Your task to perform on an android device: turn off improve location accuracy Image 0: 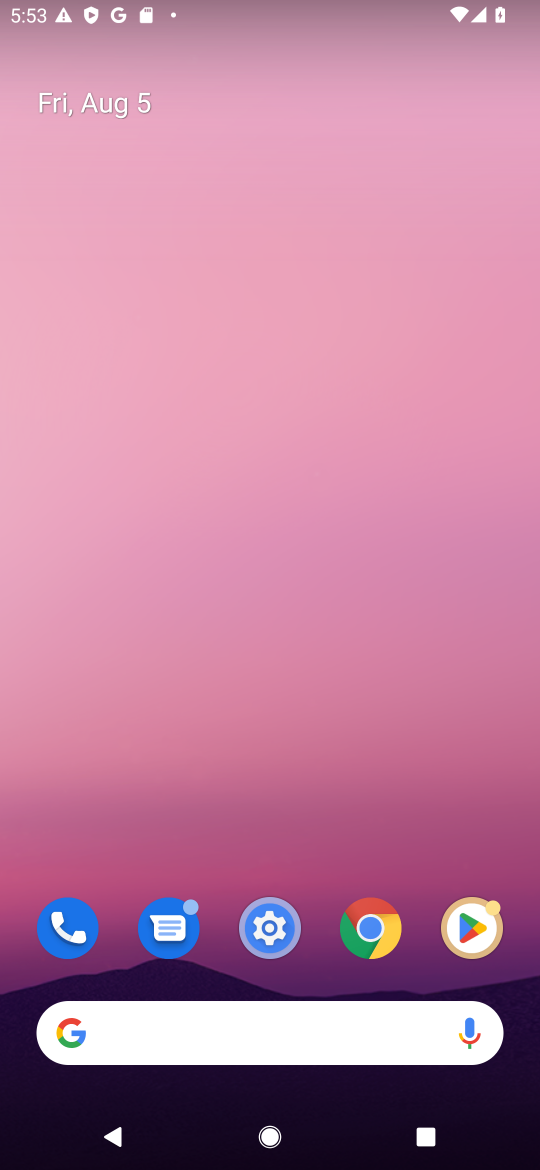
Step 0: drag from (278, 996) to (474, 615)
Your task to perform on an android device: turn off improve location accuracy Image 1: 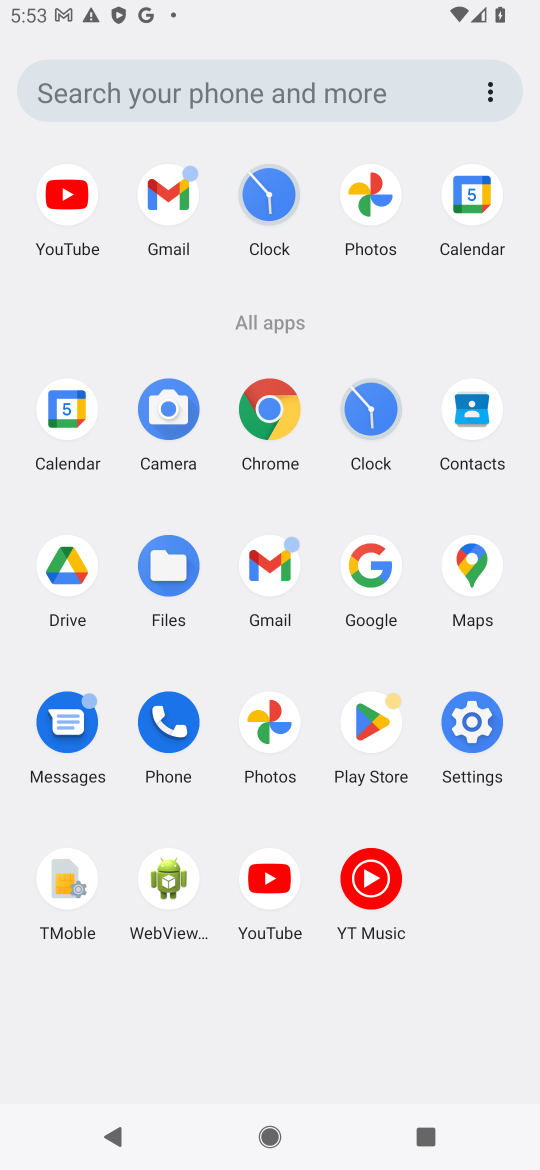
Step 1: click (460, 738)
Your task to perform on an android device: turn off improve location accuracy Image 2: 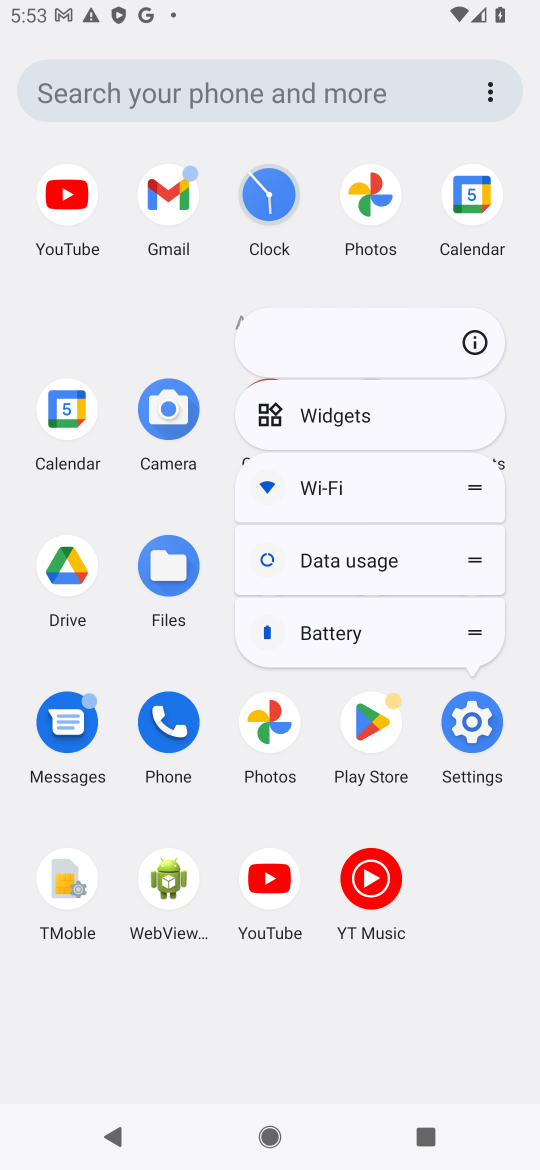
Step 2: click (465, 738)
Your task to perform on an android device: turn off improve location accuracy Image 3: 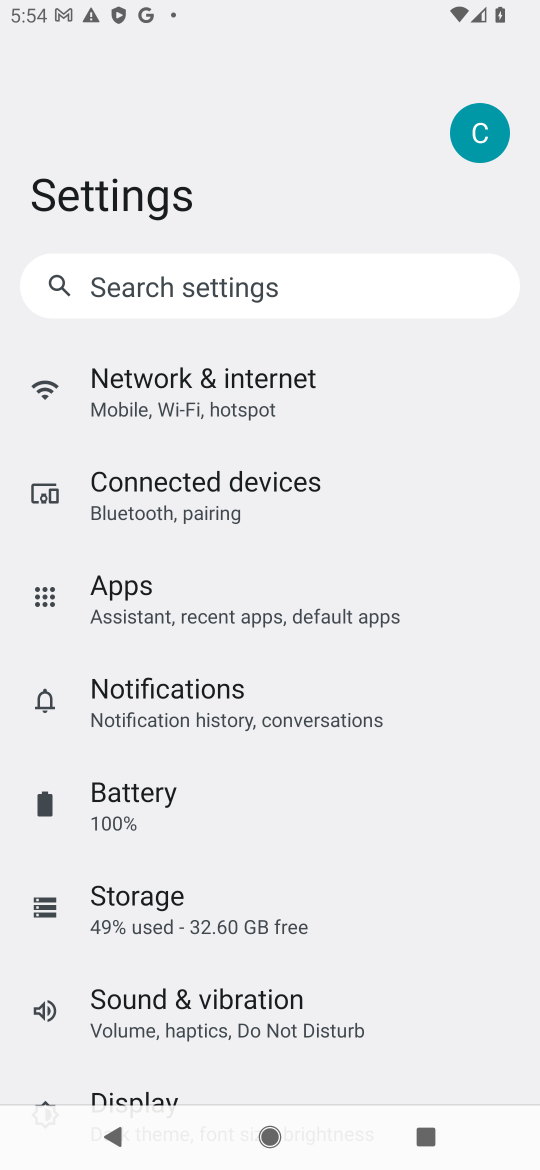
Step 3: drag from (178, 940) to (207, 229)
Your task to perform on an android device: turn off improve location accuracy Image 4: 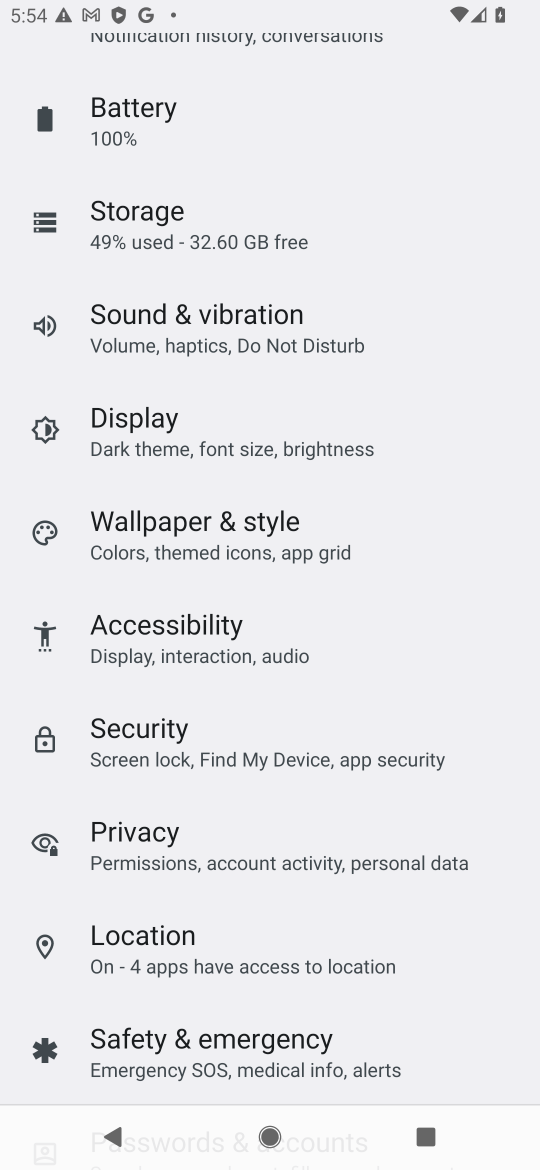
Step 4: click (242, 952)
Your task to perform on an android device: turn off improve location accuracy Image 5: 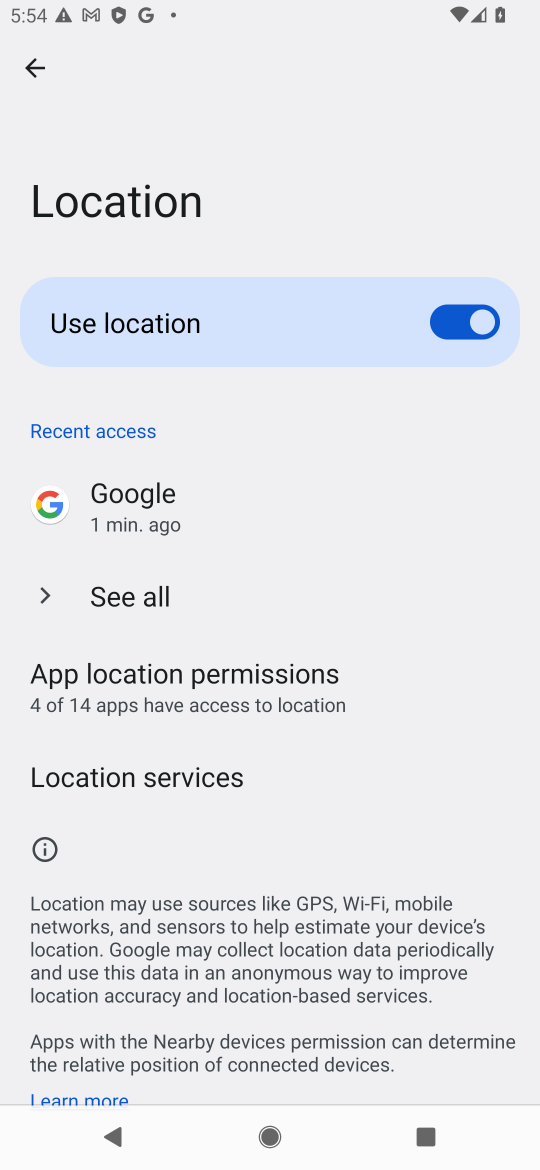
Step 5: click (199, 773)
Your task to perform on an android device: turn off improve location accuracy Image 6: 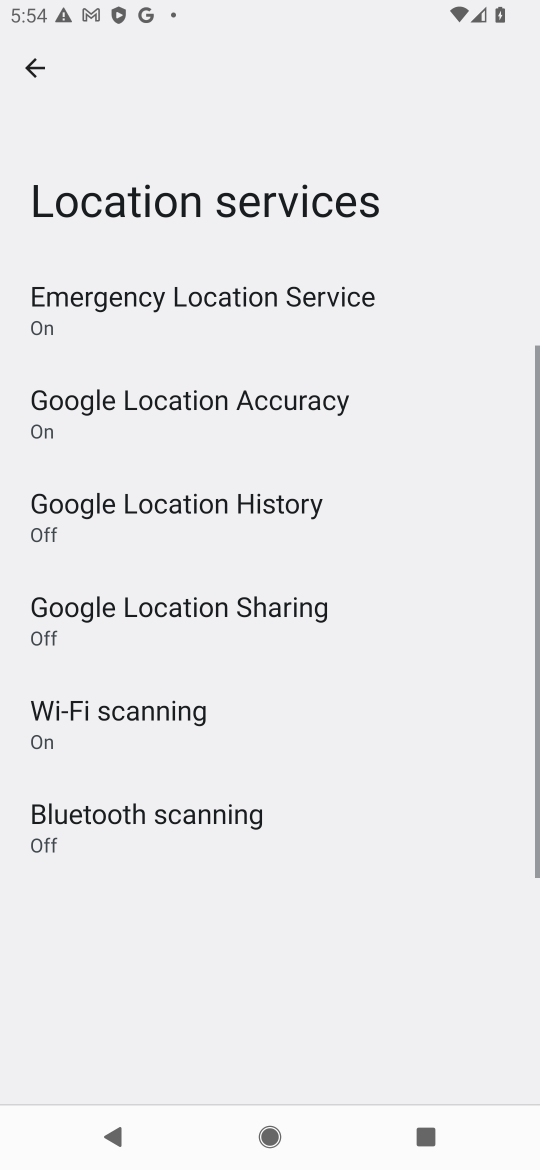
Step 6: click (235, 428)
Your task to perform on an android device: turn off improve location accuracy Image 7: 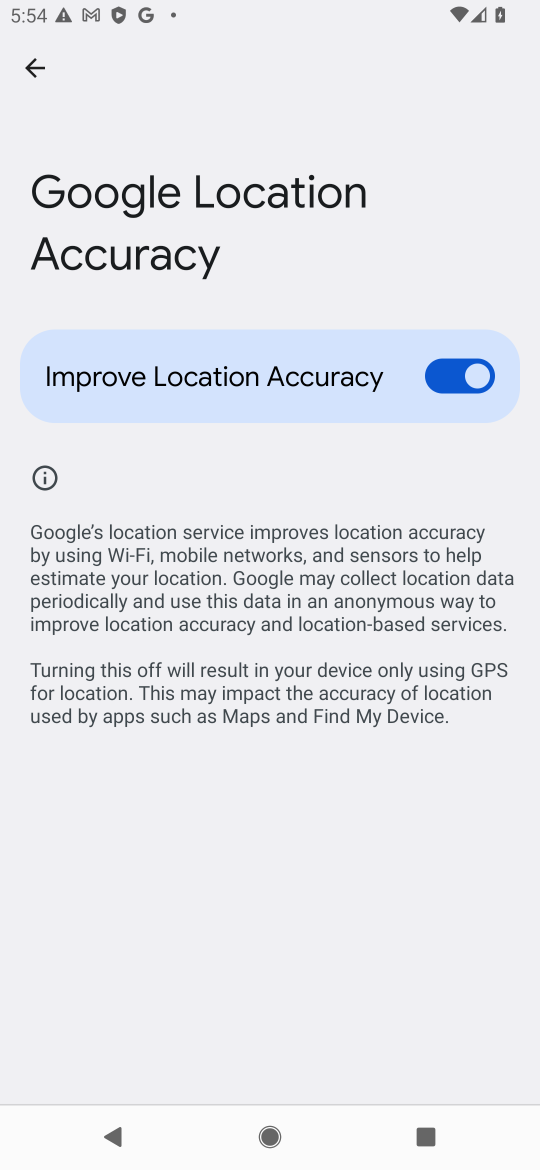
Step 7: click (440, 368)
Your task to perform on an android device: turn off improve location accuracy Image 8: 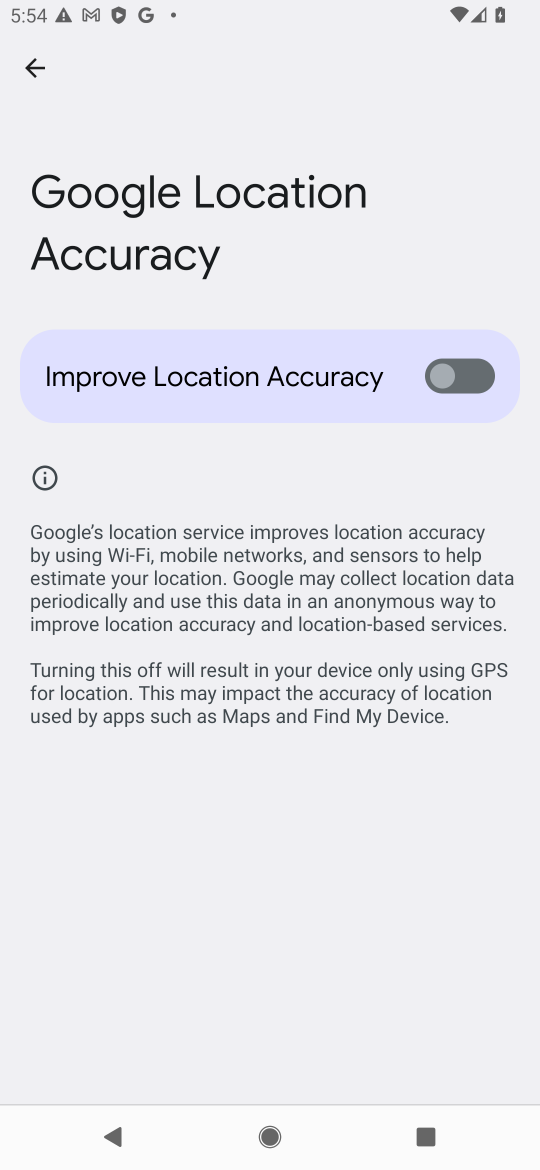
Step 8: task complete